Your task to perform on an android device: Go to CNN.com Image 0: 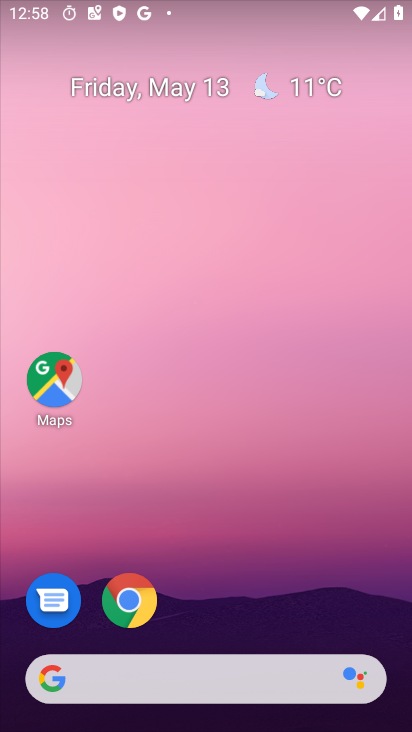
Step 0: drag from (311, 620) to (293, 208)
Your task to perform on an android device: Go to CNN.com Image 1: 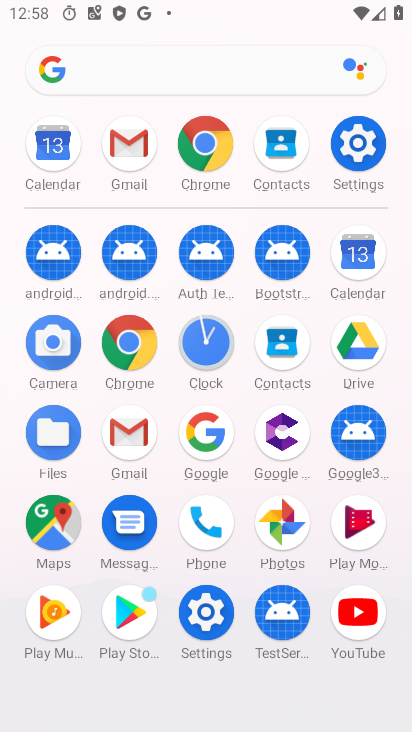
Step 1: click (214, 80)
Your task to perform on an android device: Go to CNN.com Image 2: 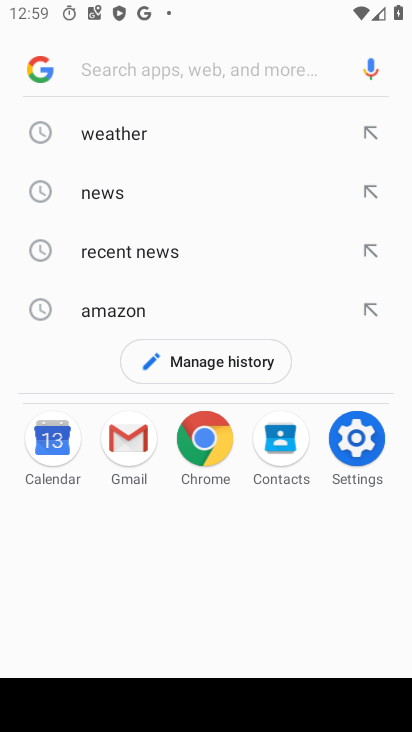
Step 2: click (66, 61)
Your task to perform on an android device: Go to CNN.com Image 3: 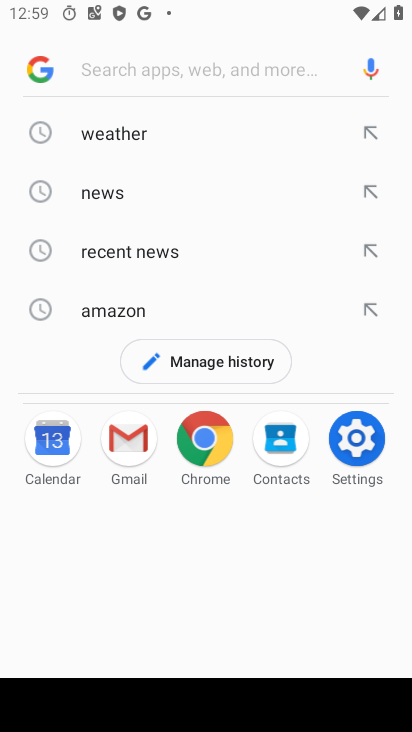
Step 3: type "cnn"
Your task to perform on an android device: Go to CNN.com Image 4: 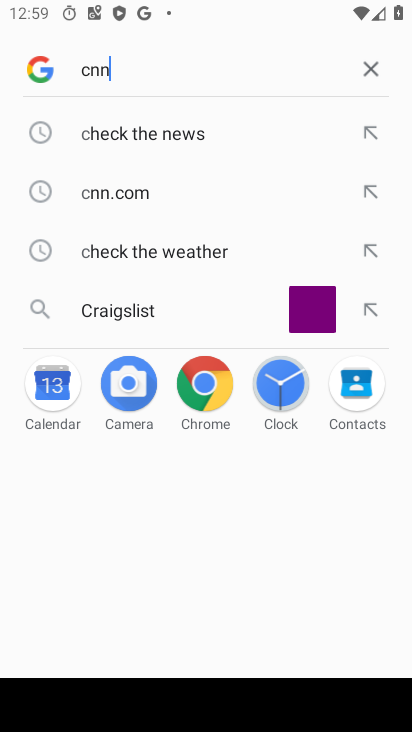
Step 4: type ""
Your task to perform on an android device: Go to CNN.com Image 5: 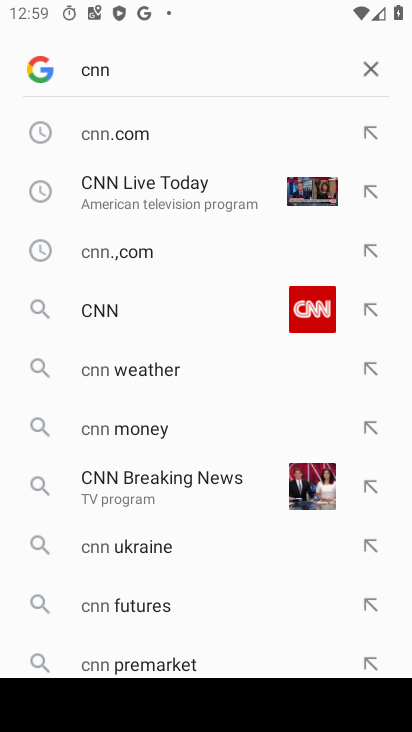
Step 5: click (151, 205)
Your task to perform on an android device: Go to CNN.com Image 6: 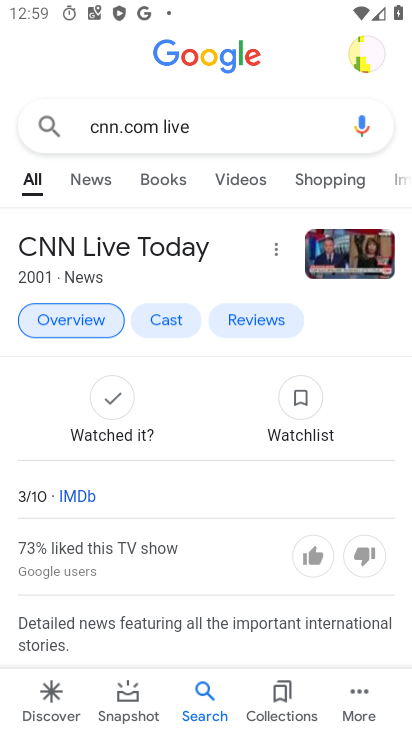
Step 6: task complete